Your task to perform on an android device: Show me productivity apps on the Play Store Image 0: 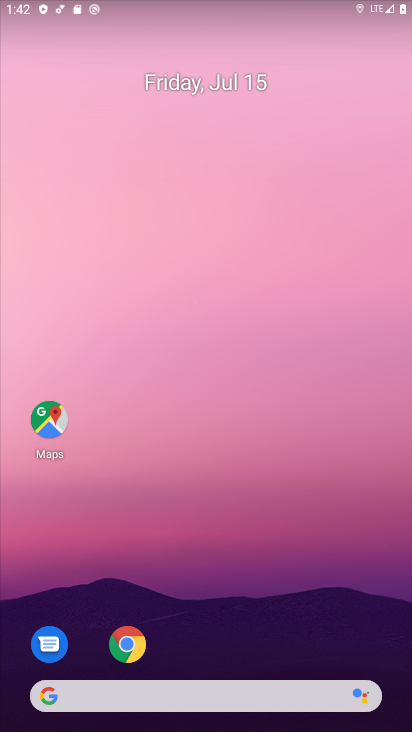
Step 0: drag from (379, 653) to (198, 10)
Your task to perform on an android device: Show me productivity apps on the Play Store Image 1: 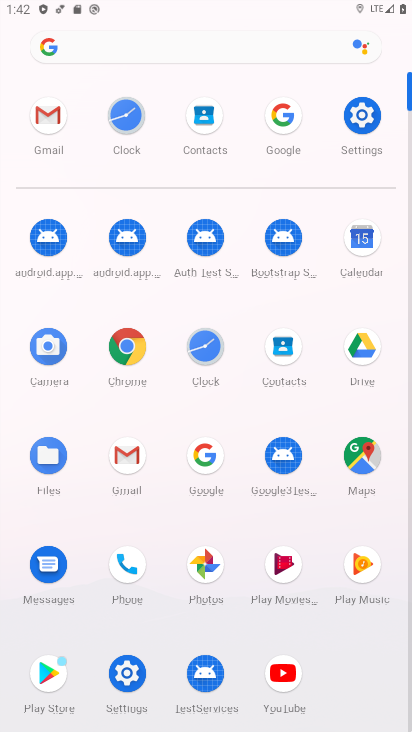
Step 1: click (61, 679)
Your task to perform on an android device: Show me productivity apps on the Play Store Image 2: 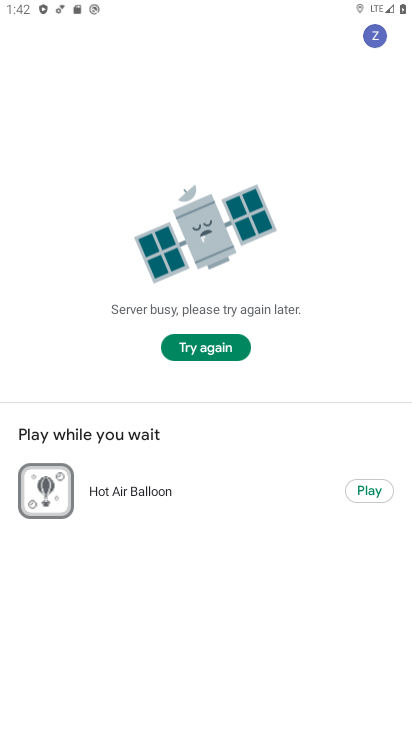
Step 2: task complete